Your task to perform on an android device: visit the assistant section in the google photos Image 0: 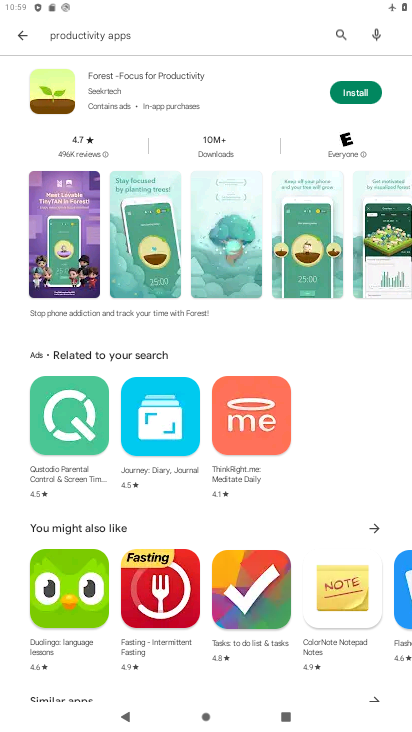
Step 0: press back button
Your task to perform on an android device: visit the assistant section in the google photos Image 1: 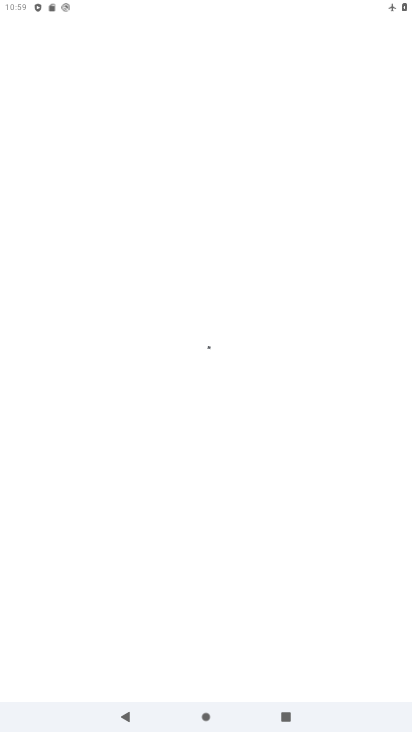
Step 1: press back button
Your task to perform on an android device: visit the assistant section in the google photos Image 2: 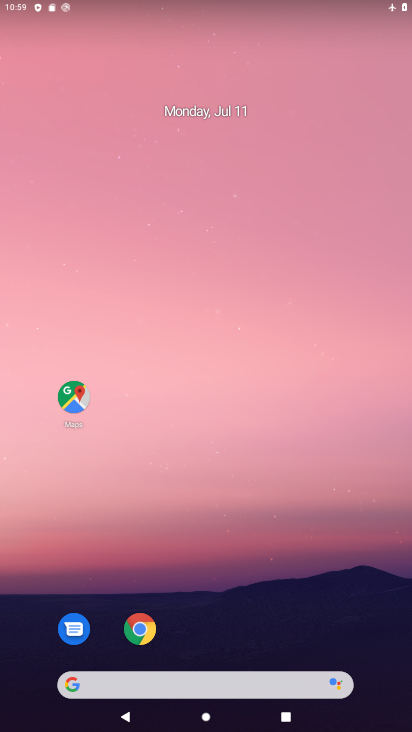
Step 2: press home button
Your task to perform on an android device: visit the assistant section in the google photos Image 3: 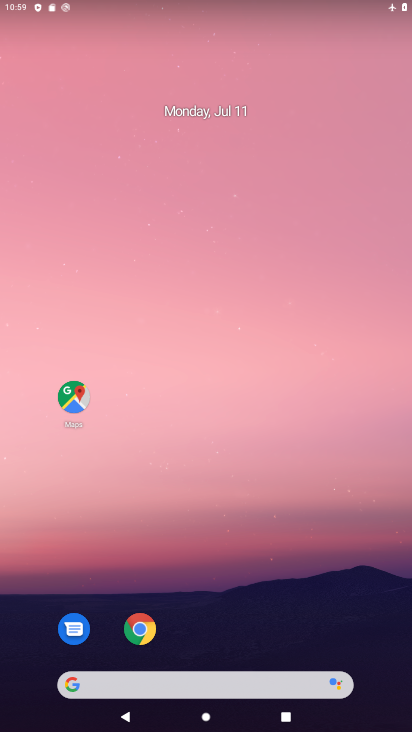
Step 3: drag from (260, 657) to (256, 31)
Your task to perform on an android device: visit the assistant section in the google photos Image 4: 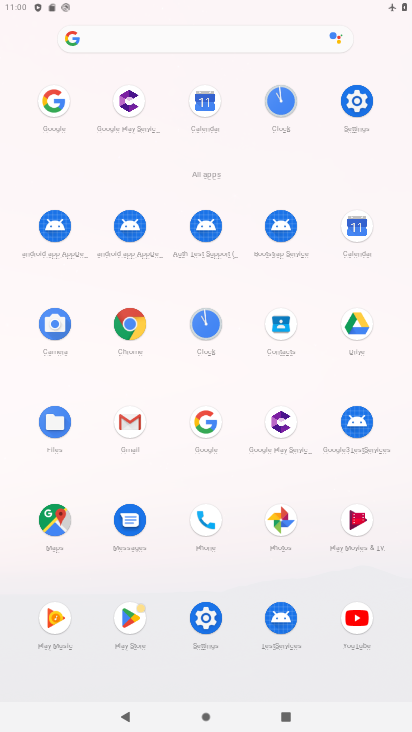
Step 4: click (285, 514)
Your task to perform on an android device: visit the assistant section in the google photos Image 5: 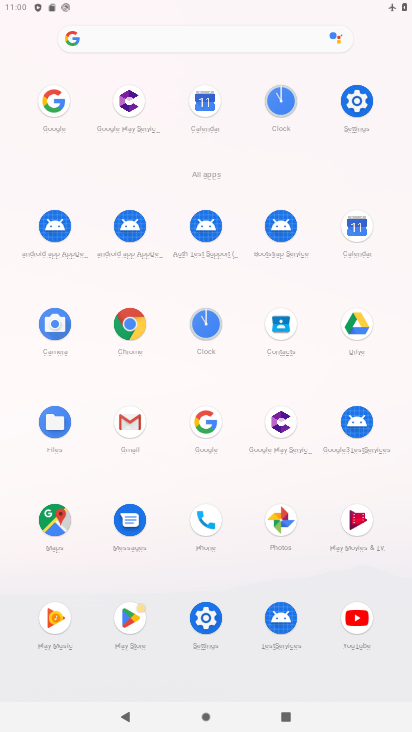
Step 5: click (274, 520)
Your task to perform on an android device: visit the assistant section in the google photos Image 6: 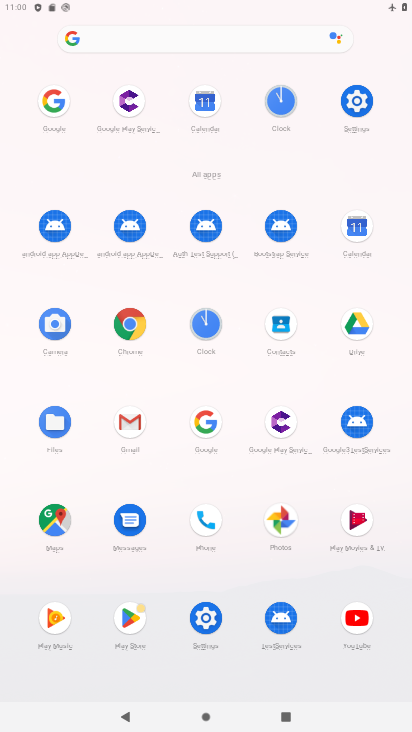
Step 6: click (276, 515)
Your task to perform on an android device: visit the assistant section in the google photos Image 7: 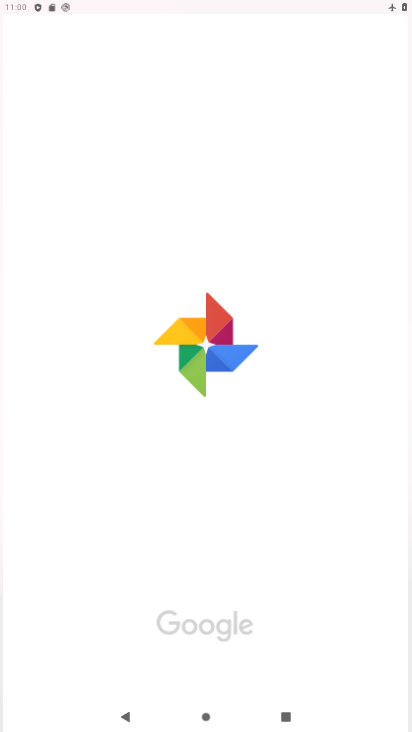
Step 7: click (278, 519)
Your task to perform on an android device: visit the assistant section in the google photos Image 8: 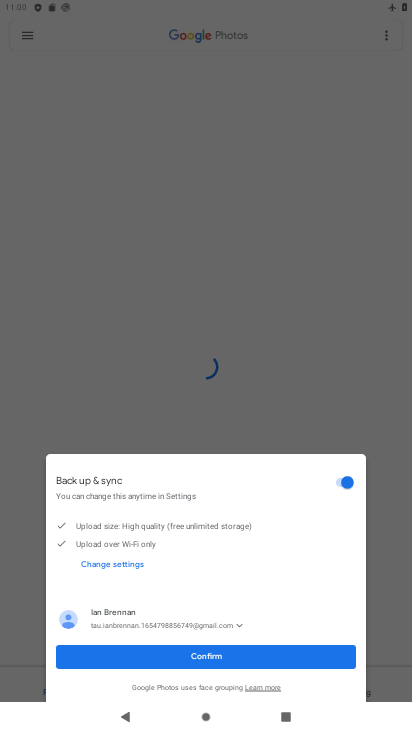
Step 8: drag from (266, 341) to (260, 265)
Your task to perform on an android device: visit the assistant section in the google photos Image 9: 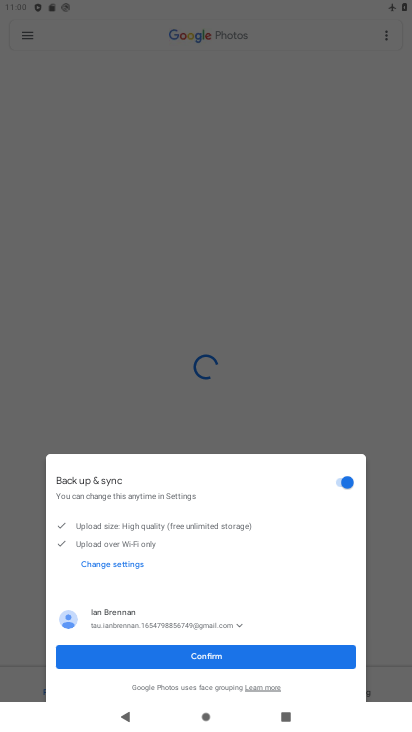
Step 9: drag from (297, 272) to (282, 196)
Your task to perform on an android device: visit the assistant section in the google photos Image 10: 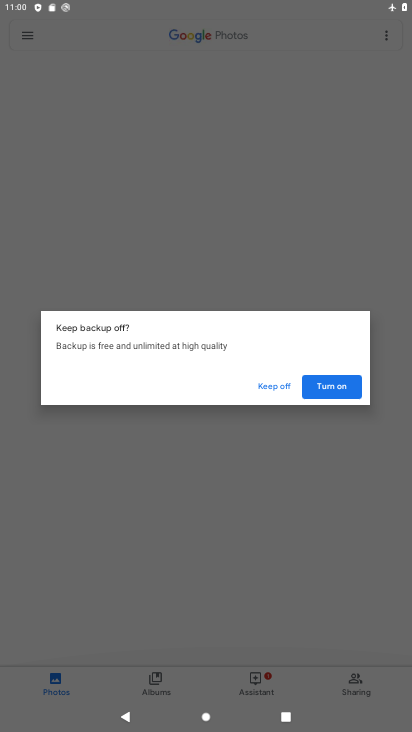
Step 10: click (294, 330)
Your task to perform on an android device: visit the assistant section in the google photos Image 11: 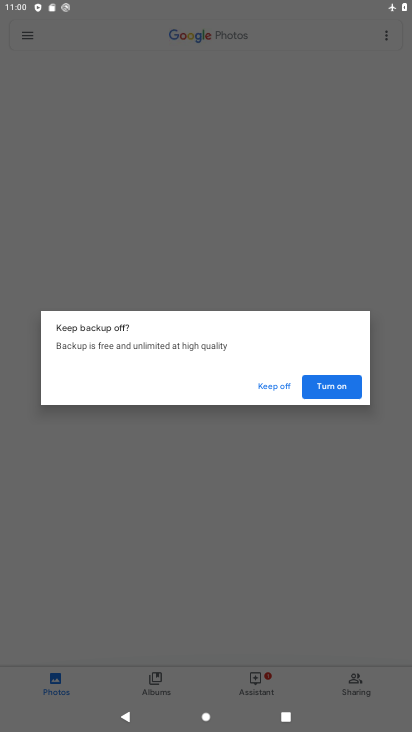
Step 11: task complete